Your task to perform on an android device: open a bookmark in the chrome app Image 0: 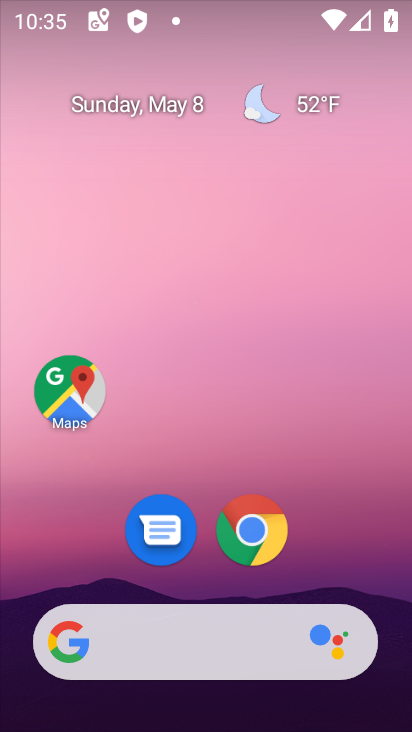
Step 0: drag from (360, 555) to (358, 124)
Your task to perform on an android device: open a bookmark in the chrome app Image 1: 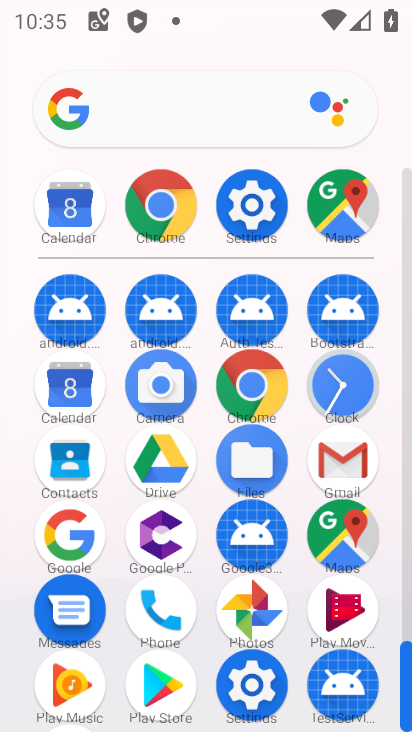
Step 1: click (264, 384)
Your task to perform on an android device: open a bookmark in the chrome app Image 2: 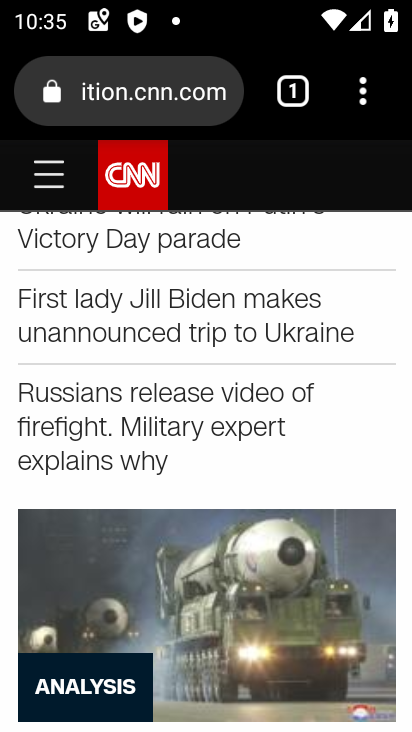
Step 2: task complete